Your task to perform on an android device: open a bookmark in the chrome app Image 0: 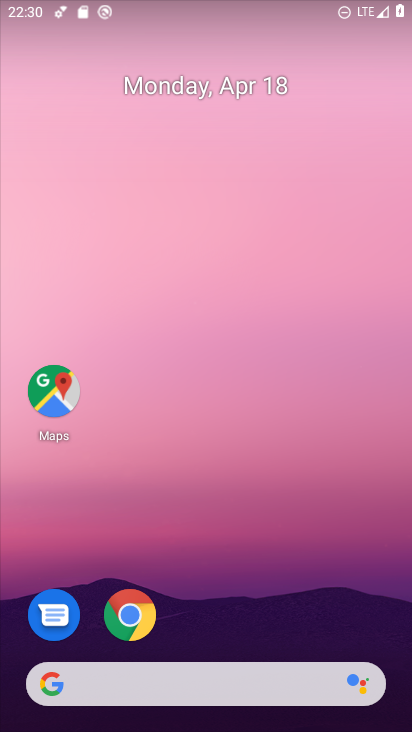
Step 0: click (142, 602)
Your task to perform on an android device: open a bookmark in the chrome app Image 1: 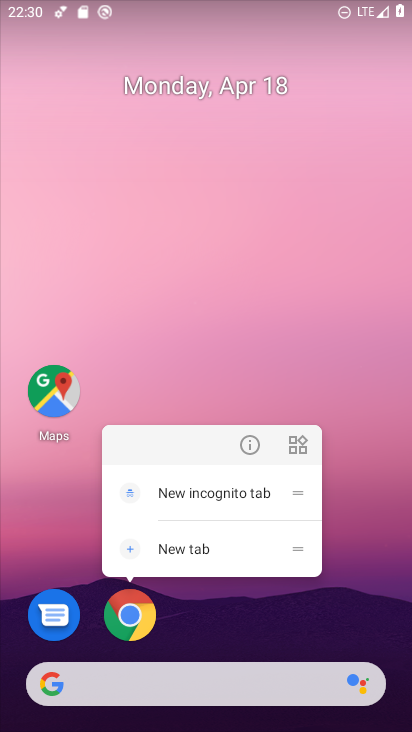
Step 1: click (132, 615)
Your task to perform on an android device: open a bookmark in the chrome app Image 2: 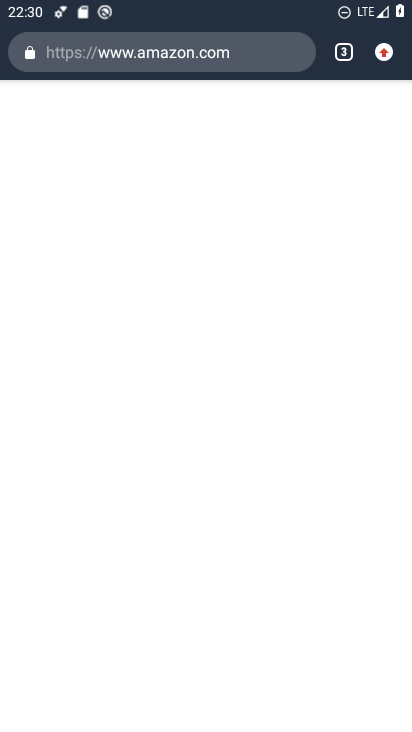
Step 2: click (382, 52)
Your task to perform on an android device: open a bookmark in the chrome app Image 3: 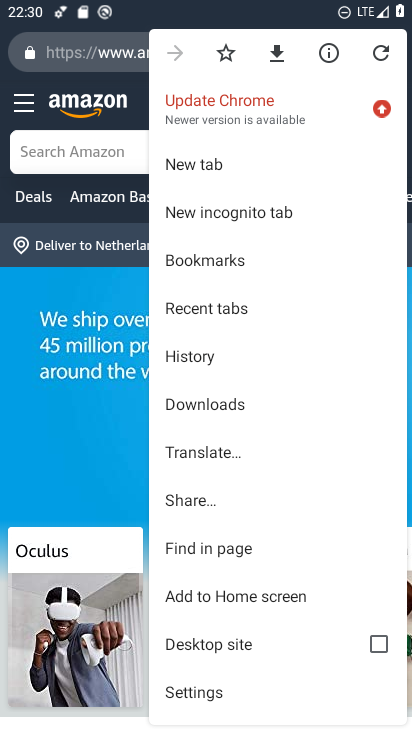
Step 3: click (223, 258)
Your task to perform on an android device: open a bookmark in the chrome app Image 4: 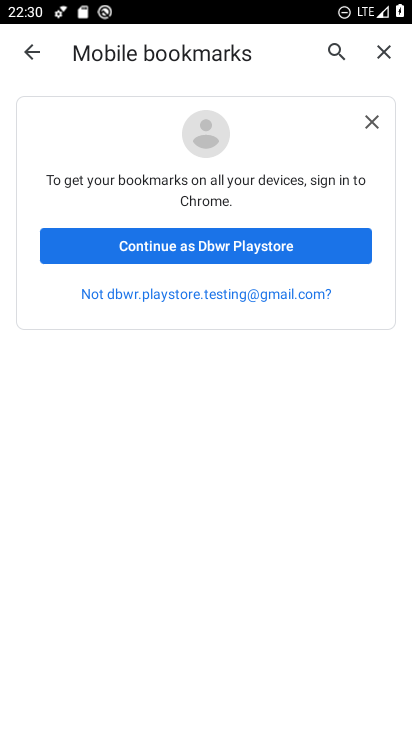
Step 4: click (215, 248)
Your task to perform on an android device: open a bookmark in the chrome app Image 5: 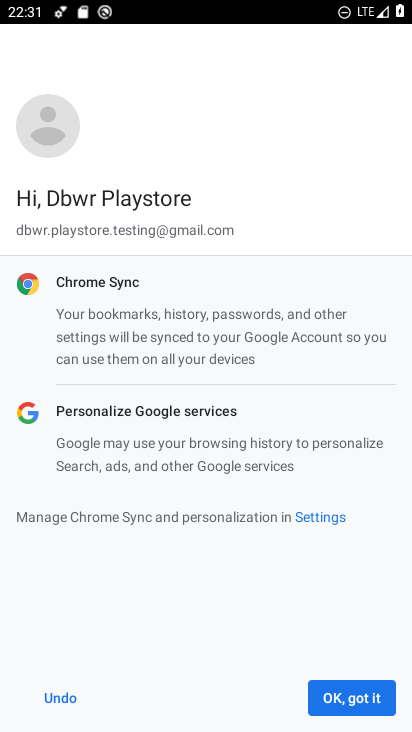
Step 5: click (332, 686)
Your task to perform on an android device: open a bookmark in the chrome app Image 6: 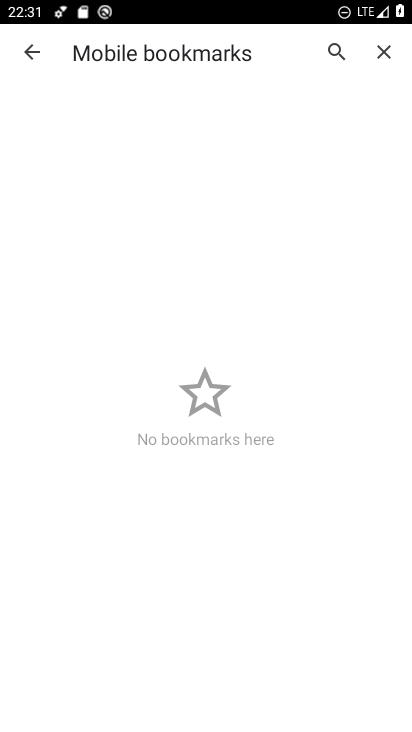
Step 6: click (333, 696)
Your task to perform on an android device: open a bookmark in the chrome app Image 7: 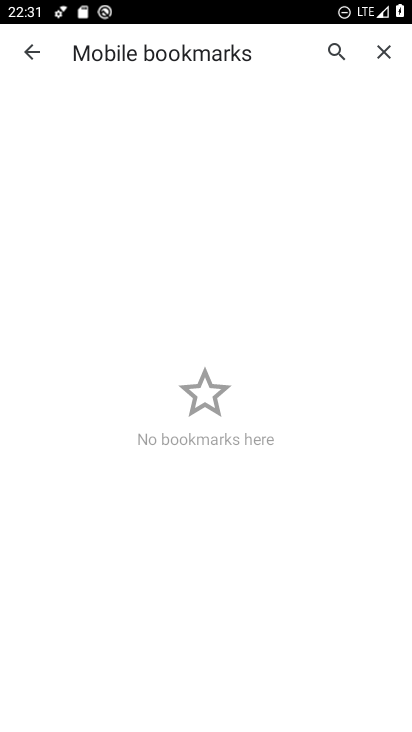
Step 7: task complete